Your task to perform on an android device: Open Google Maps and go to "Timeline" Image 0: 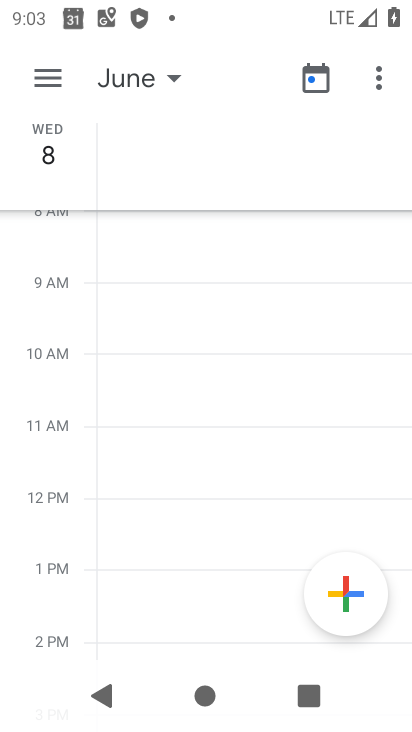
Step 0: press home button
Your task to perform on an android device: Open Google Maps and go to "Timeline" Image 1: 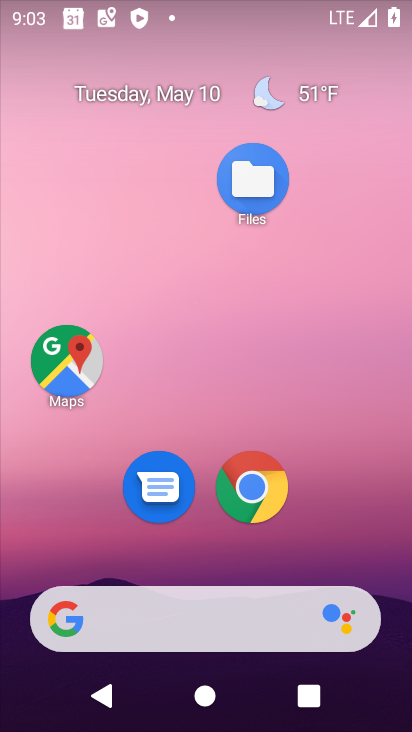
Step 1: click (67, 358)
Your task to perform on an android device: Open Google Maps and go to "Timeline" Image 2: 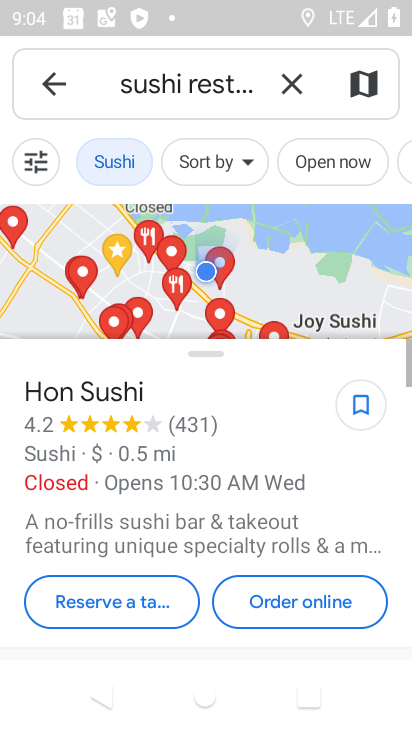
Step 2: press back button
Your task to perform on an android device: Open Google Maps and go to "Timeline" Image 3: 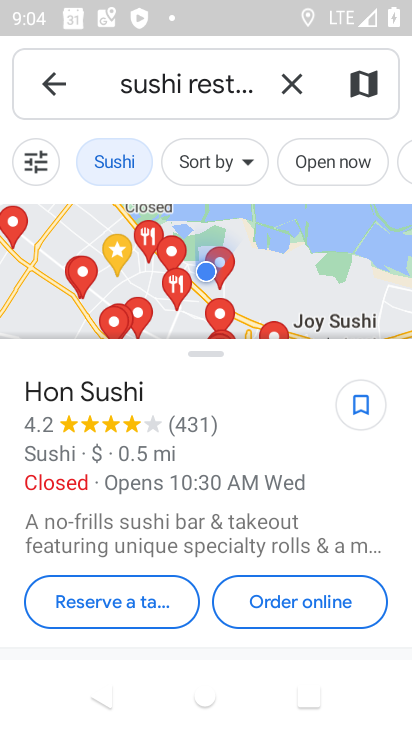
Step 3: click (281, 84)
Your task to perform on an android device: Open Google Maps and go to "Timeline" Image 4: 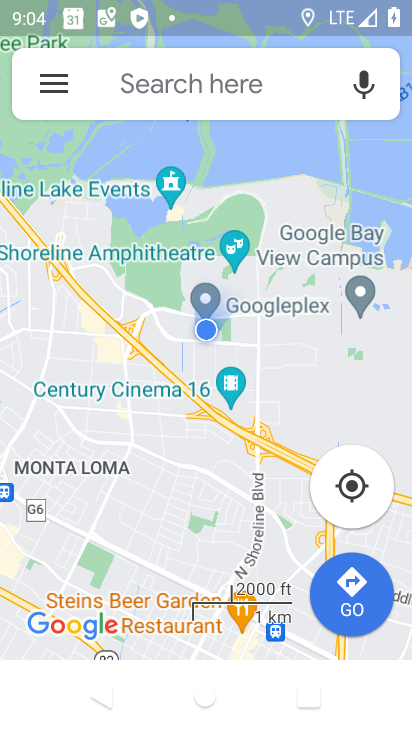
Step 4: click (51, 83)
Your task to perform on an android device: Open Google Maps and go to "Timeline" Image 5: 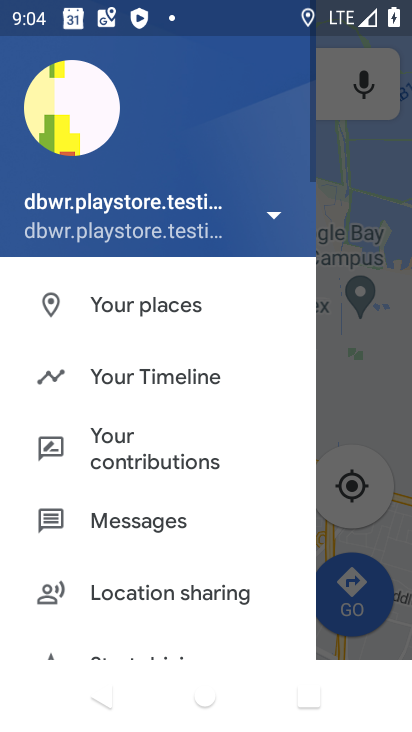
Step 5: click (164, 385)
Your task to perform on an android device: Open Google Maps and go to "Timeline" Image 6: 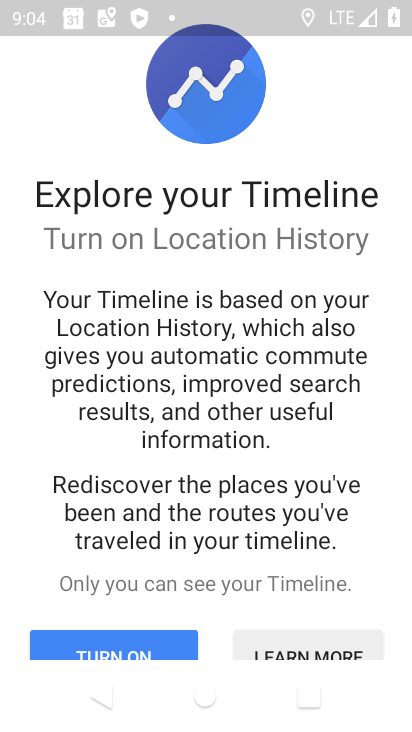
Step 6: drag from (207, 567) to (234, 69)
Your task to perform on an android device: Open Google Maps and go to "Timeline" Image 7: 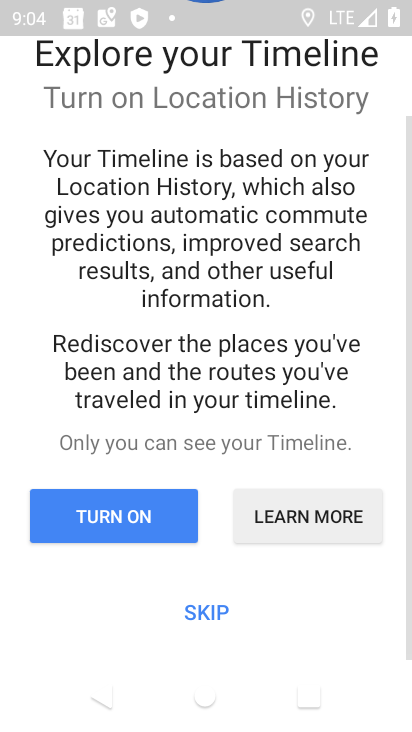
Step 7: click (196, 613)
Your task to perform on an android device: Open Google Maps and go to "Timeline" Image 8: 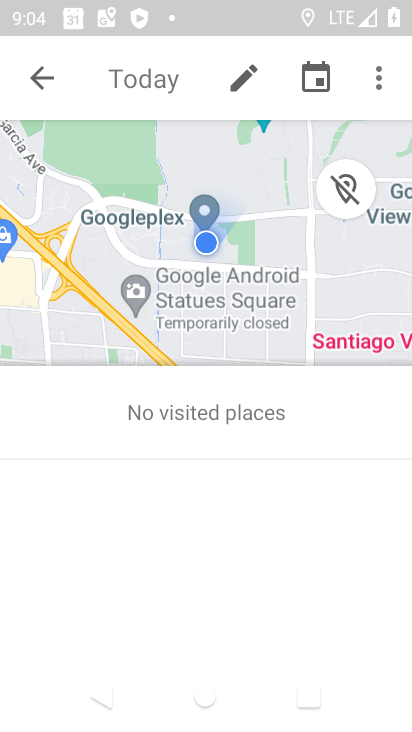
Step 8: task complete